Your task to perform on an android device: turn on airplane mode Image 0: 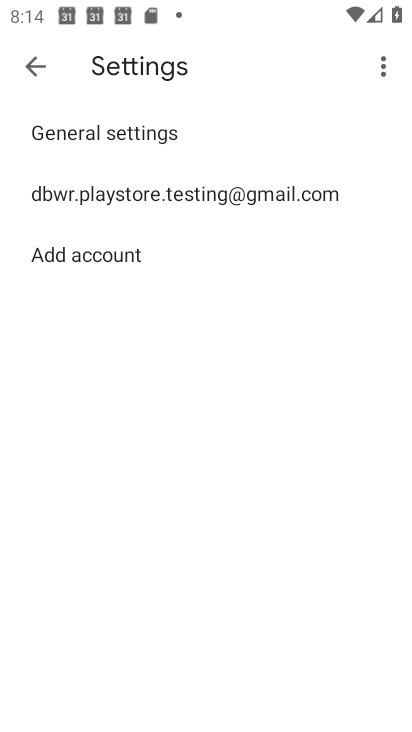
Step 0: press home button
Your task to perform on an android device: turn on airplane mode Image 1: 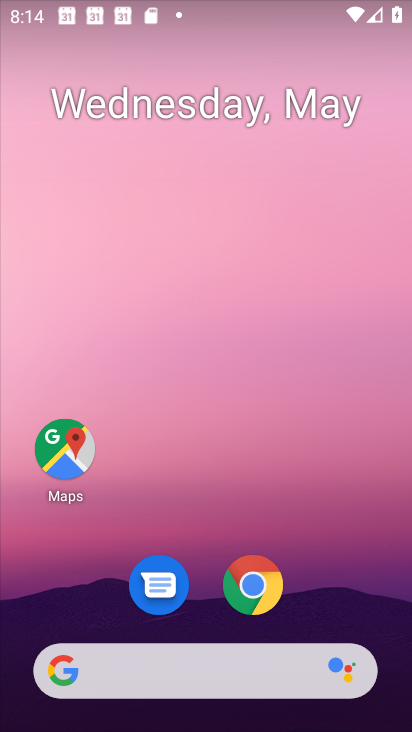
Step 1: drag from (252, 441) to (241, 59)
Your task to perform on an android device: turn on airplane mode Image 2: 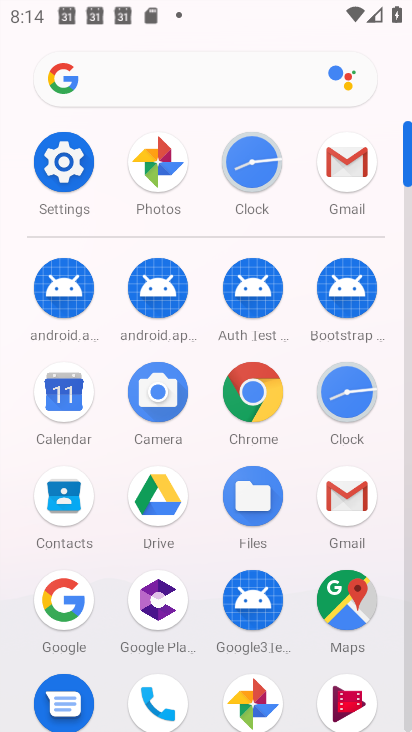
Step 2: click (67, 151)
Your task to perform on an android device: turn on airplane mode Image 3: 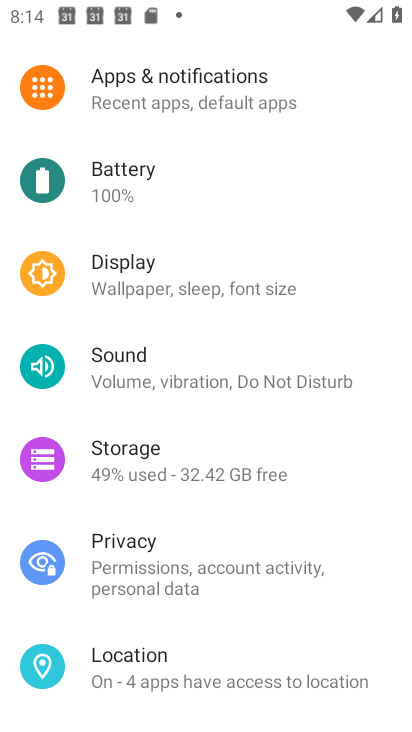
Step 3: drag from (204, 192) to (258, 638)
Your task to perform on an android device: turn on airplane mode Image 4: 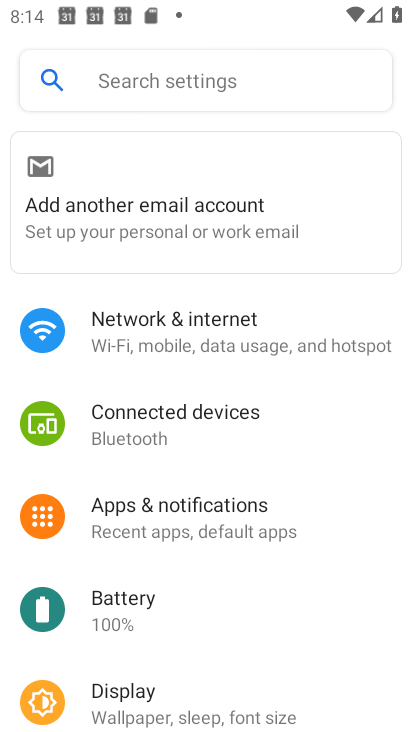
Step 4: click (187, 334)
Your task to perform on an android device: turn on airplane mode Image 5: 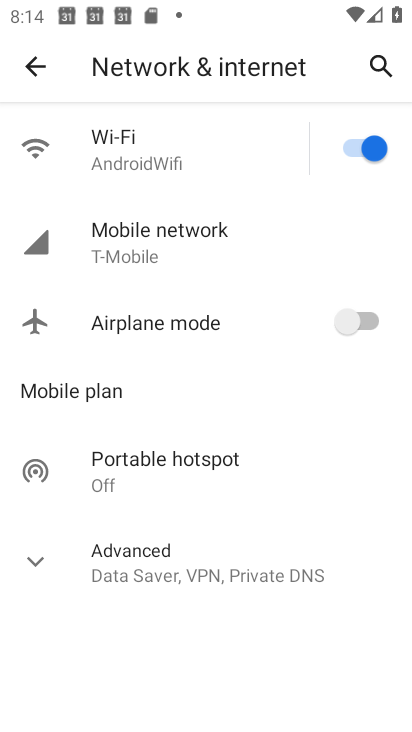
Step 5: click (365, 319)
Your task to perform on an android device: turn on airplane mode Image 6: 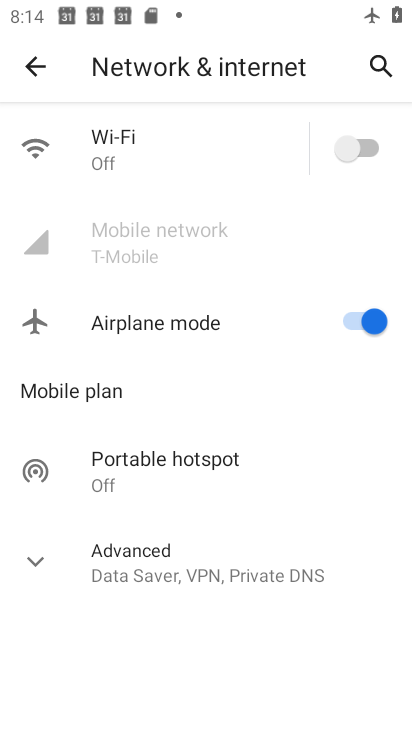
Step 6: task complete